Your task to perform on an android device: Open my contact list Image 0: 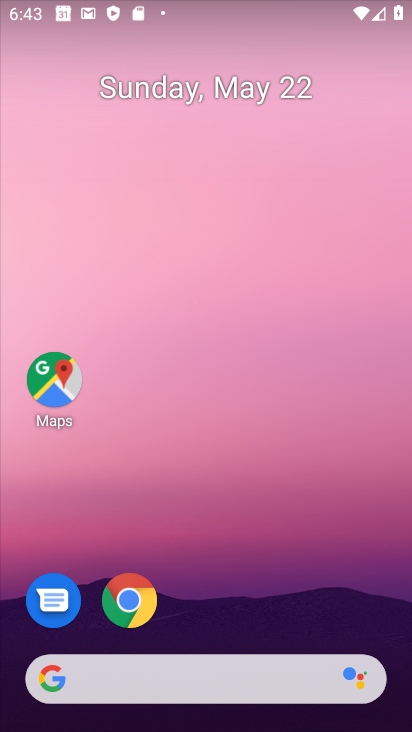
Step 0: drag from (353, 599) to (282, 24)
Your task to perform on an android device: Open my contact list Image 1: 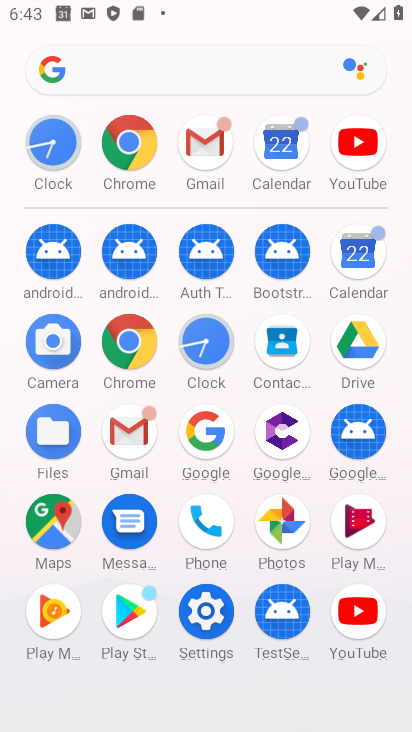
Step 1: click (279, 357)
Your task to perform on an android device: Open my contact list Image 2: 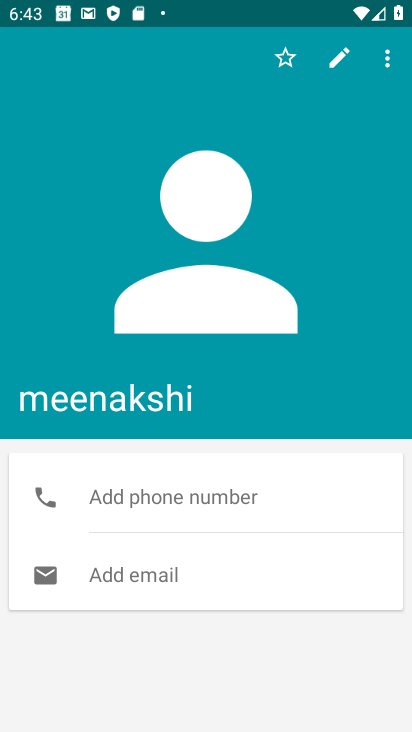
Step 2: task complete